Your task to perform on an android device: See recent photos Image 0: 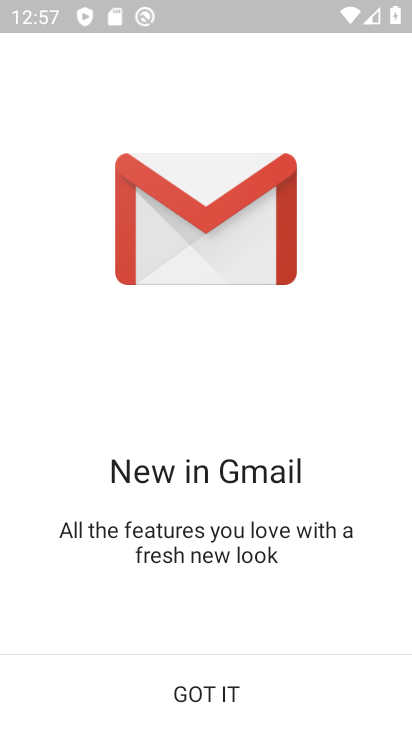
Step 0: press home button
Your task to perform on an android device: See recent photos Image 1: 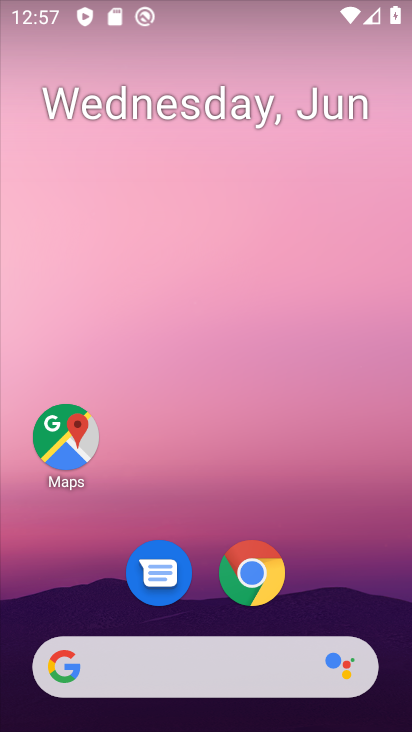
Step 1: drag from (330, 480) to (295, 104)
Your task to perform on an android device: See recent photos Image 2: 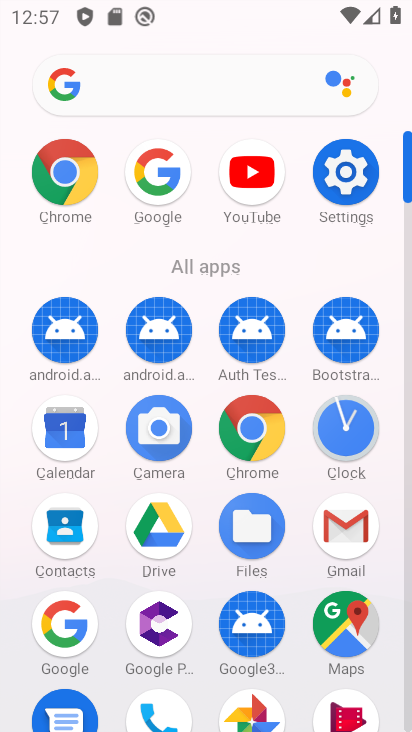
Step 2: drag from (217, 617) to (209, 304)
Your task to perform on an android device: See recent photos Image 3: 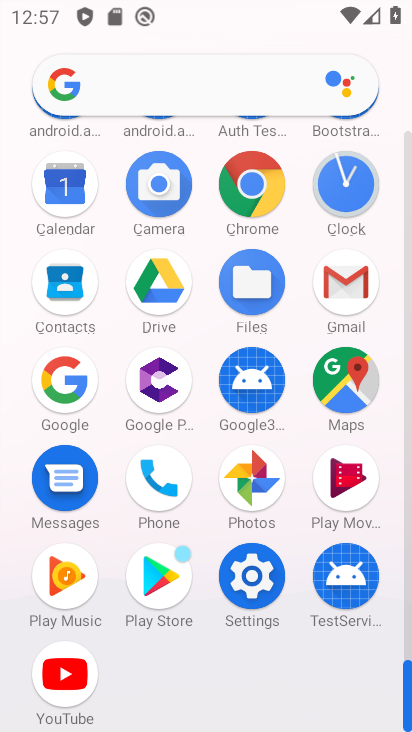
Step 3: click (243, 477)
Your task to perform on an android device: See recent photos Image 4: 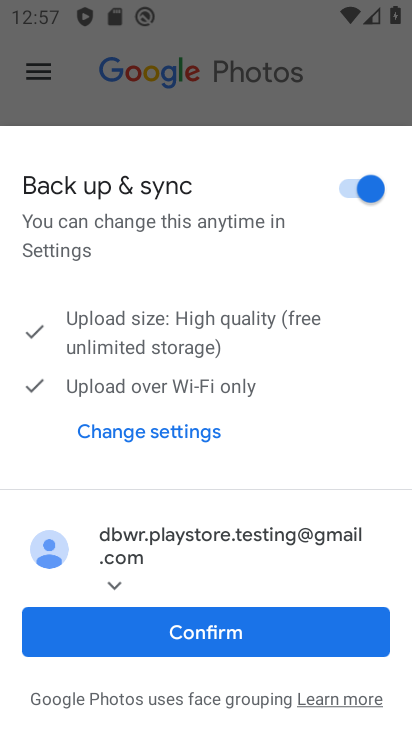
Step 4: click (266, 636)
Your task to perform on an android device: See recent photos Image 5: 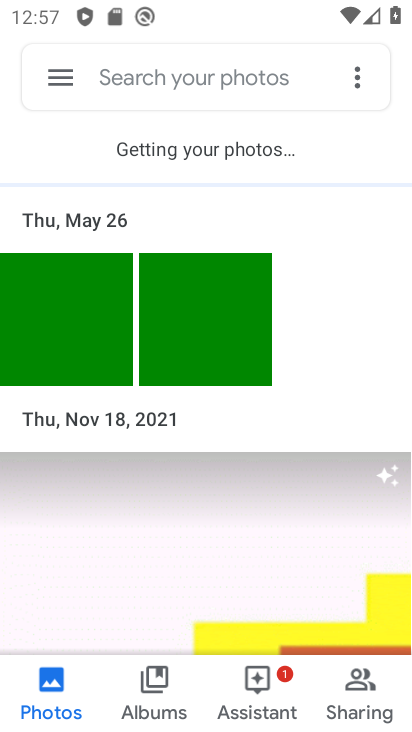
Step 5: task complete